Your task to perform on an android device: Open Amazon Image 0: 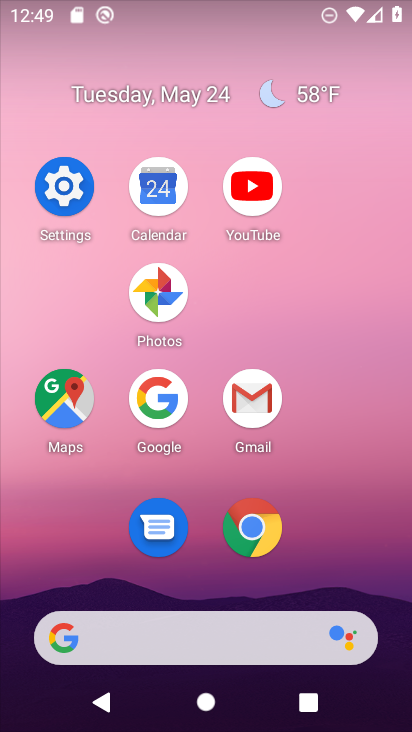
Step 0: click (264, 523)
Your task to perform on an android device: Open Amazon Image 1: 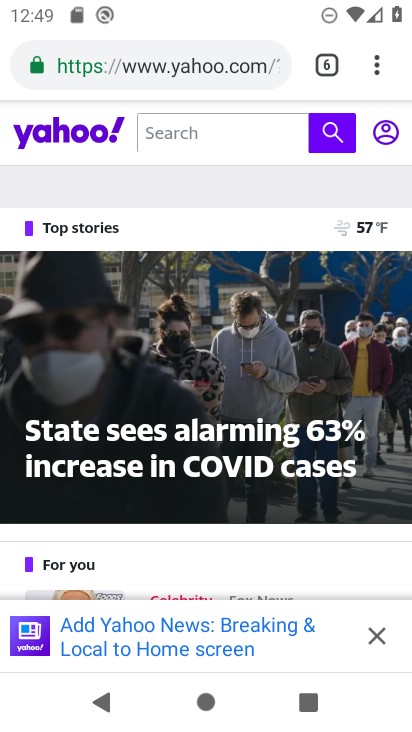
Step 1: click (330, 57)
Your task to perform on an android device: Open Amazon Image 2: 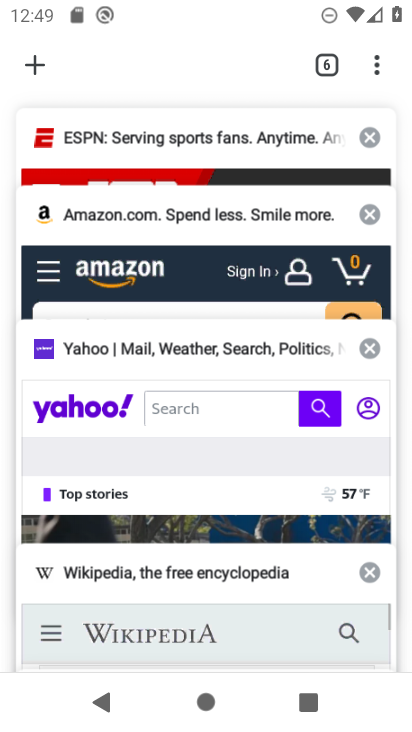
Step 2: drag from (190, 289) to (230, 588)
Your task to perform on an android device: Open Amazon Image 3: 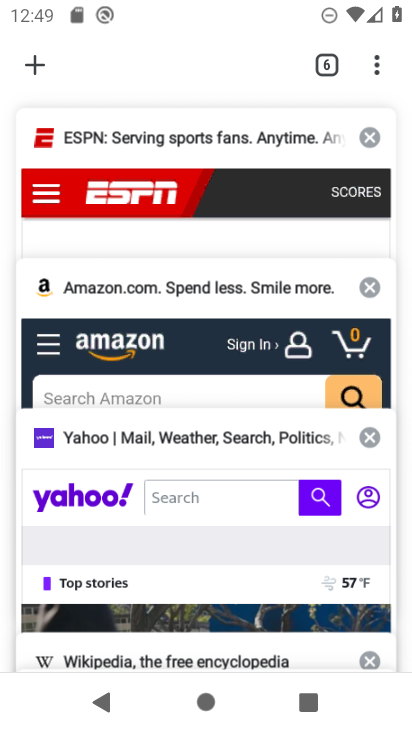
Step 3: click (99, 351)
Your task to perform on an android device: Open Amazon Image 4: 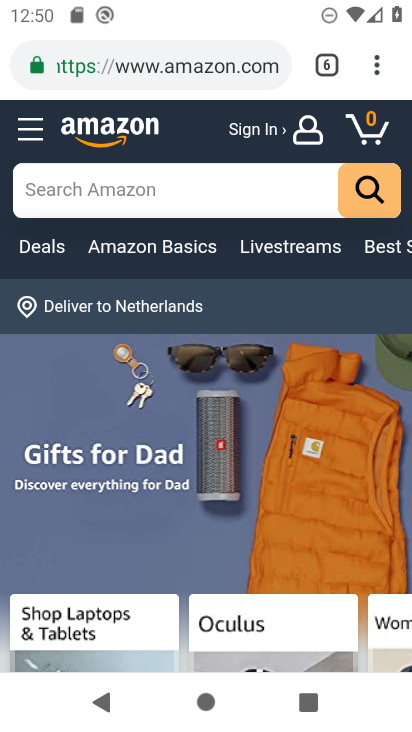
Step 4: task complete